Your task to perform on an android device: Search for the new nike air max 270 on Nike.com Image 0: 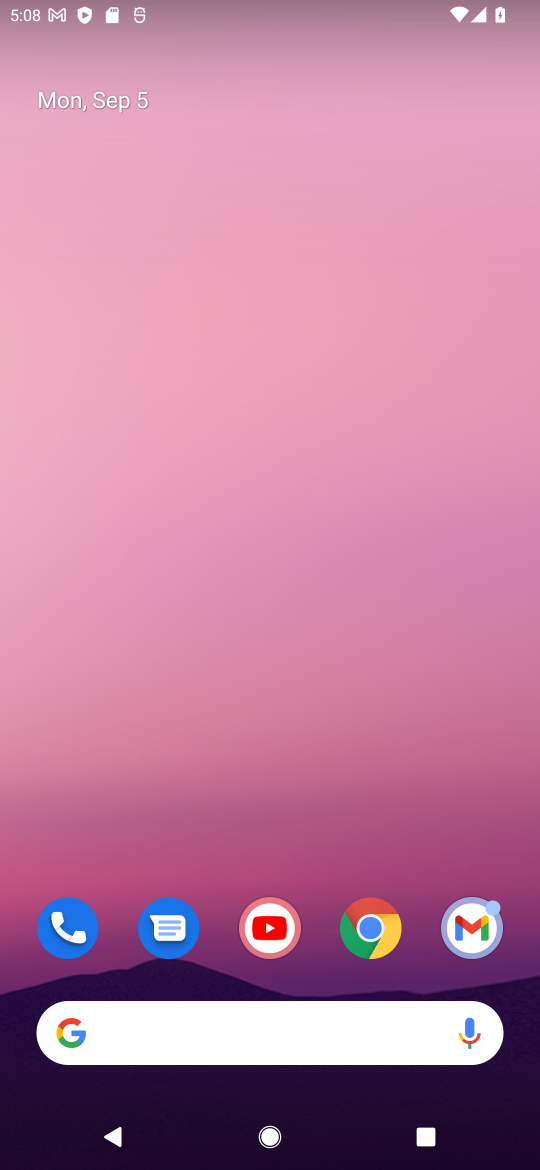
Step 0: click (376, 933)
Your task to perform on an android device: Search for the new nike air max 270 on Nike.com Image 1: 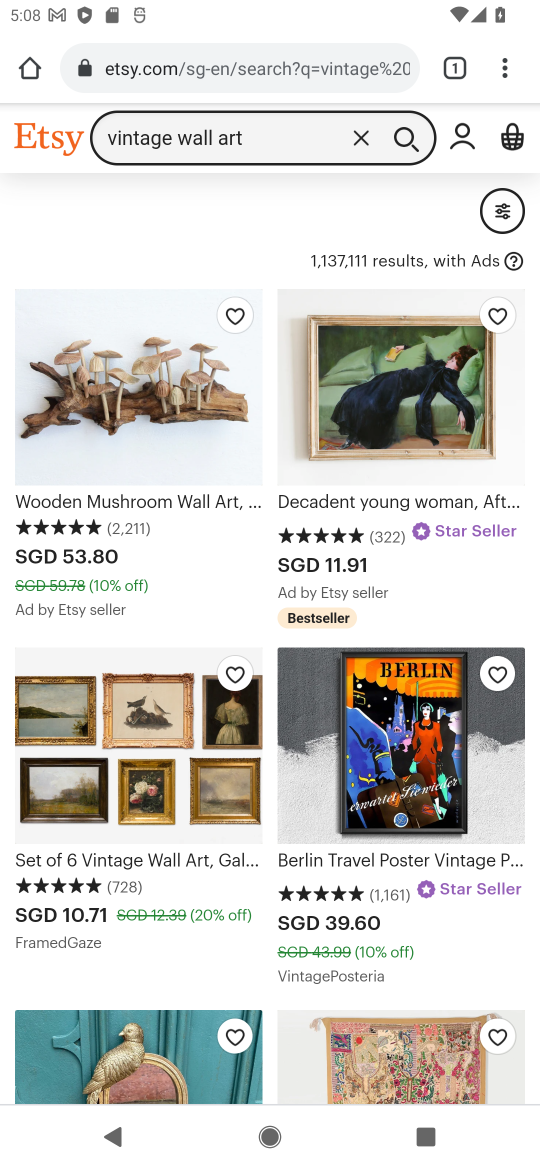
Step 1: click (217, 67)
Your task to perform on an android device: Search for the new nike air max 270 on Nike.com Image 2: 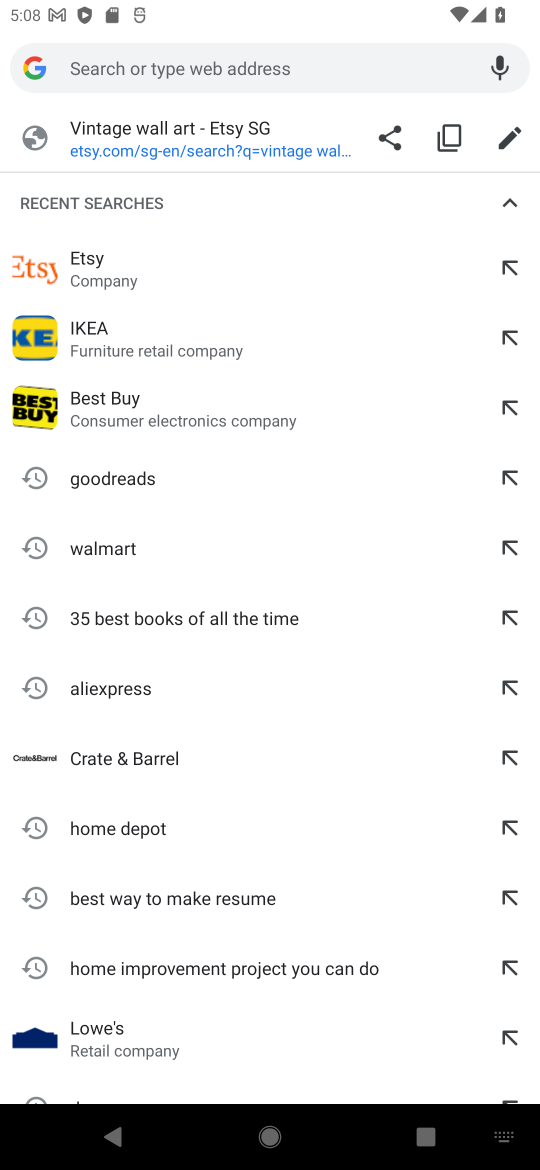
Step 2: type "nike.com"
Your task to perform on an android device: Search for the new nike air max 270 on Nike.com Image 3: 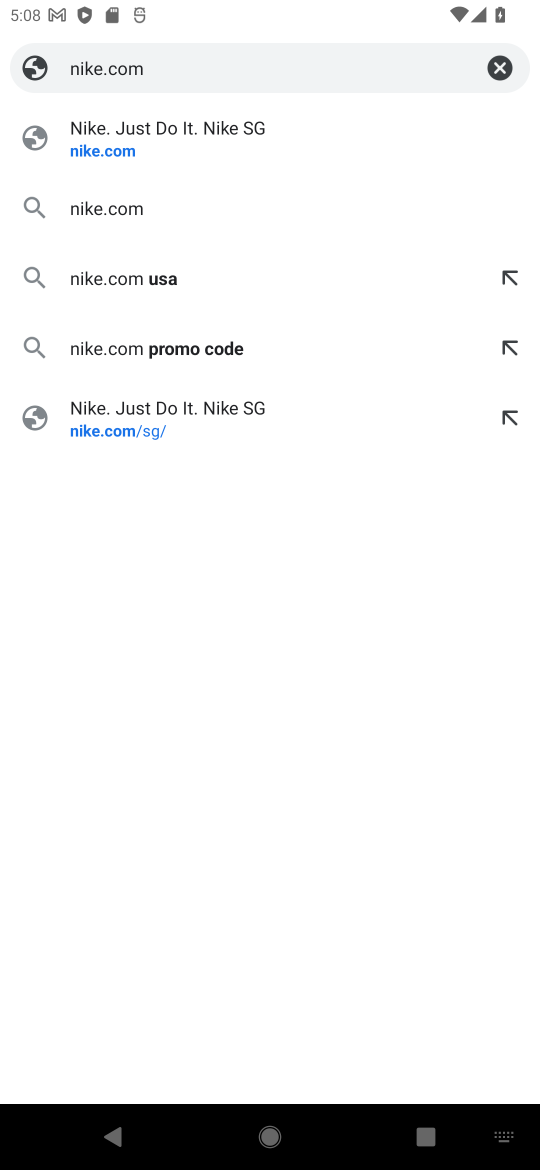
Step 3: click (127, 208)
Your task to perform on an android device: Search for the new nike air max 270 on Nike.com Image 4: 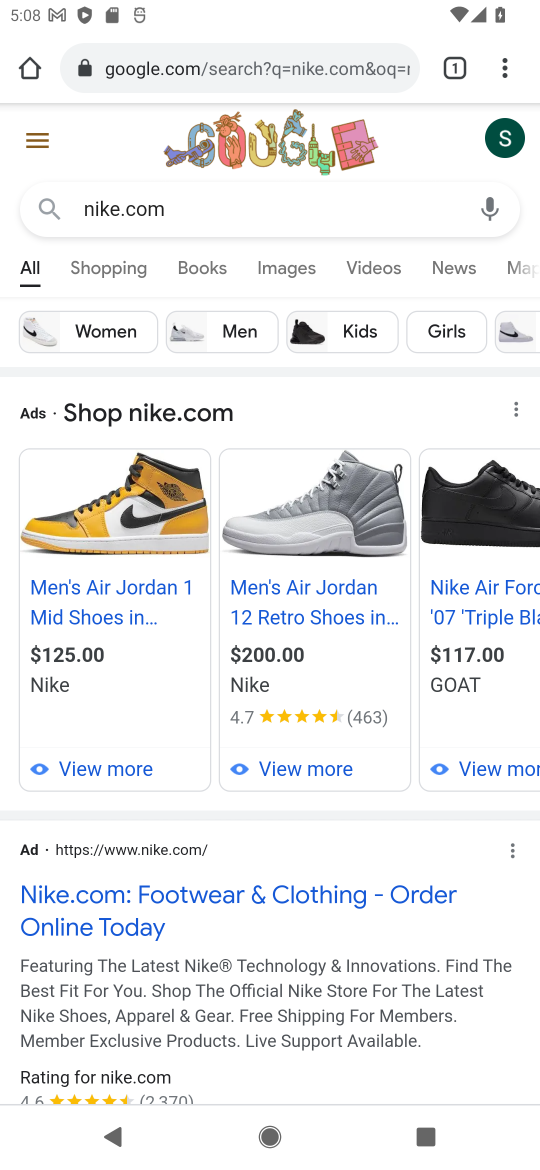
Step 4: click (234, 893)
Your task to perform on an android device: Search for the new nike air max 270 on Nike.com Image 5: 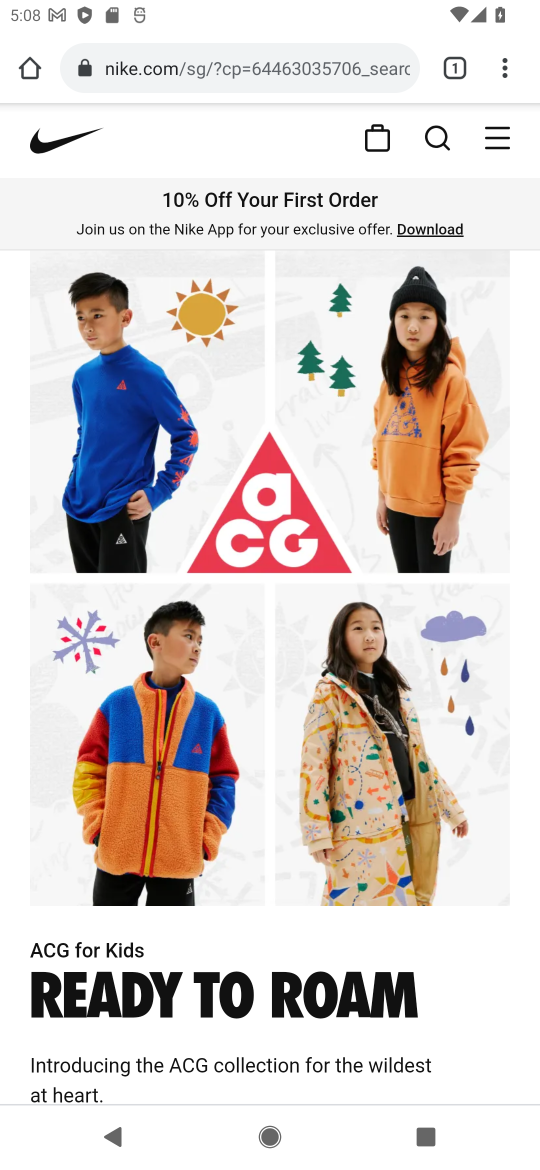
Step 5: click (439, 130)
Your task to perform on an android device: Search for the new nike air max 270 on Nike.com Image 6: 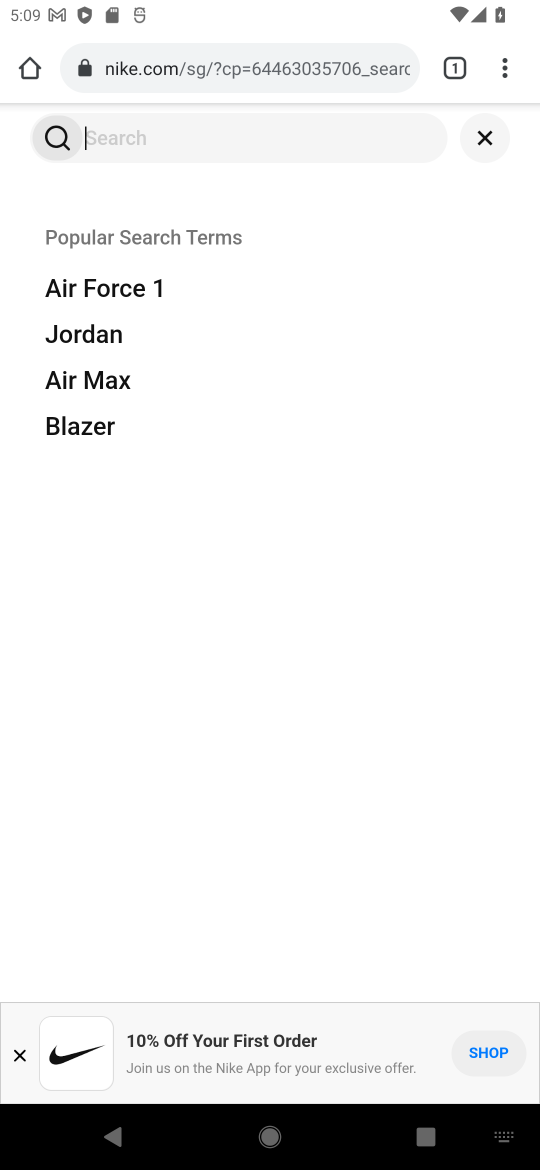
Step 6: type ""
Your task to perform on an android device: Search for the new nike air max 270 on Nike.com Image 7: 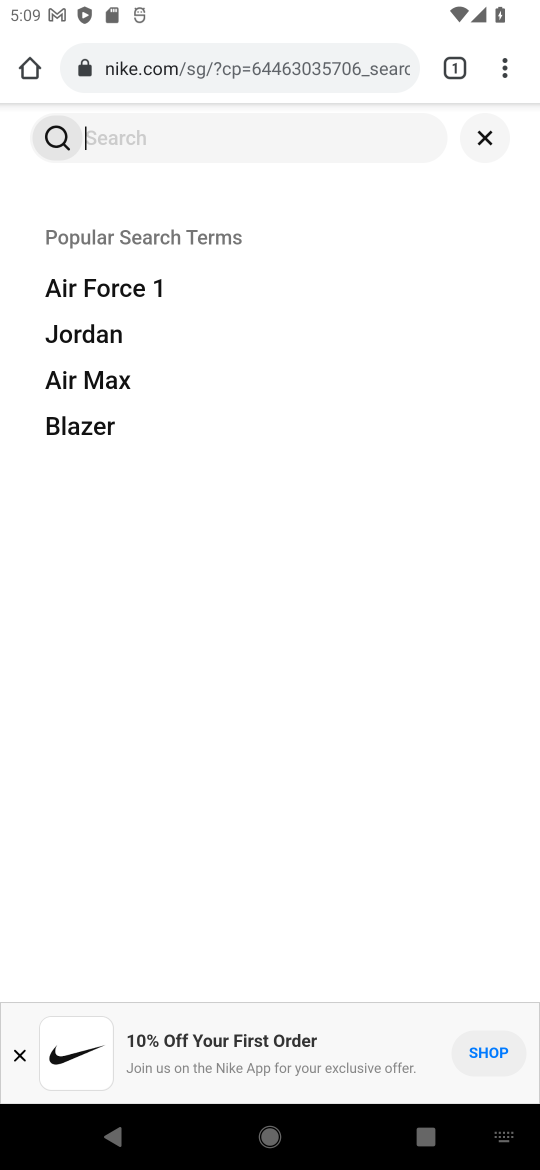
Step 7: type "the new nike air max 270"
Your task to perform on an android device: Search for the new nike air max 270 on Nike.com Image 8: 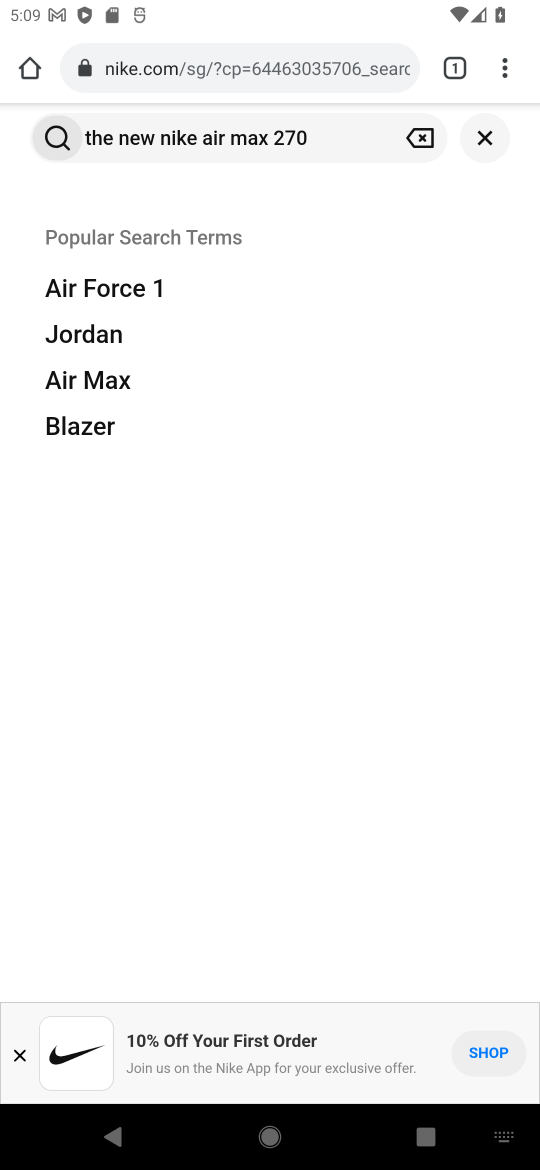
Step 8: click (52, 144)
Your task to perform on an android device: Search for the new nike air max 270 on Nike.com Image 9: 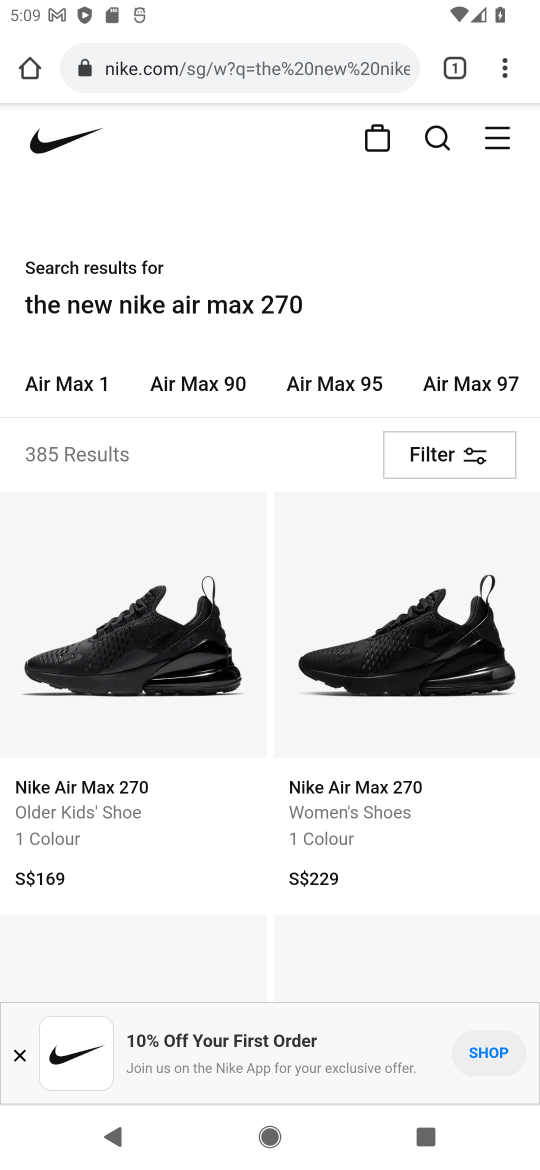
Step 9: task complete